Your task to perform on an android device: open a bookmark in the chrome app Image 0: 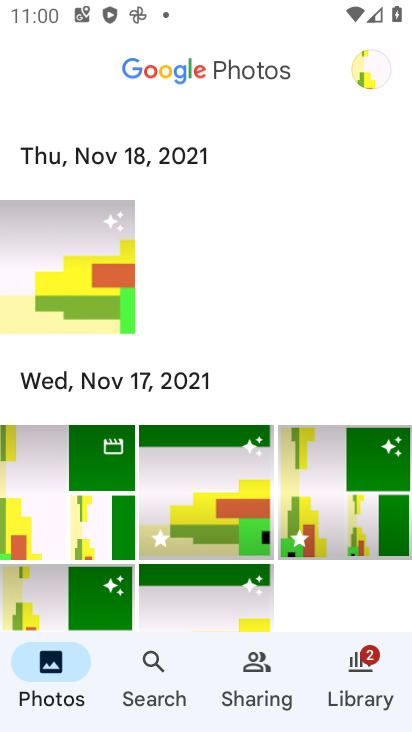
Step 0: press home button
Your task to perform on an android device: open a bookmark in the chrome app Image 1: 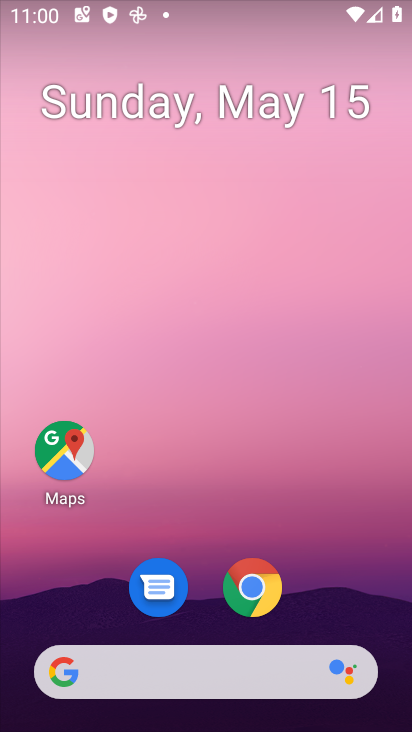
Step 1: drag from (388, 671) to (257, 74)
Your task to perform on an android device: open a bookmark in the chrome app Image 2: 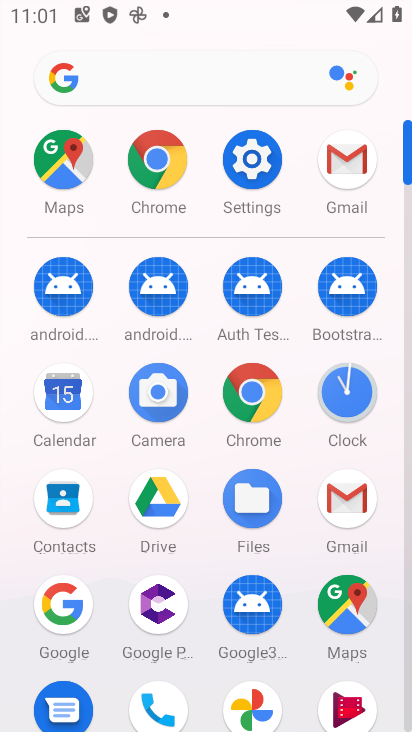
Step 2: click (148, 178)
Your task to perform on an android device: open a bookmark in the chrome app Image 3: 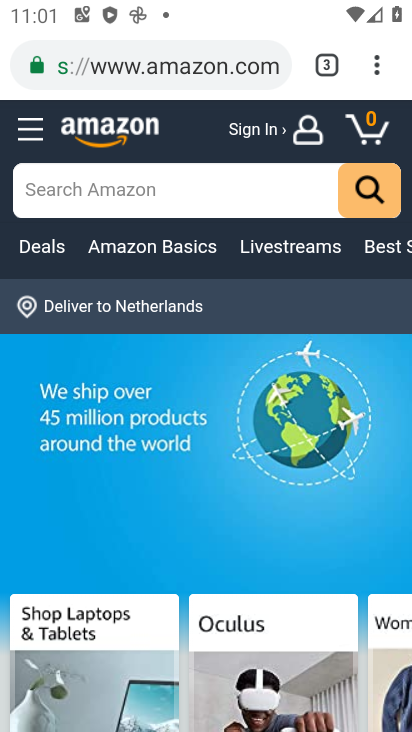
Step 3: press back button
Your task to perform on an android device: open a bookmark in the chrome app Image 4: 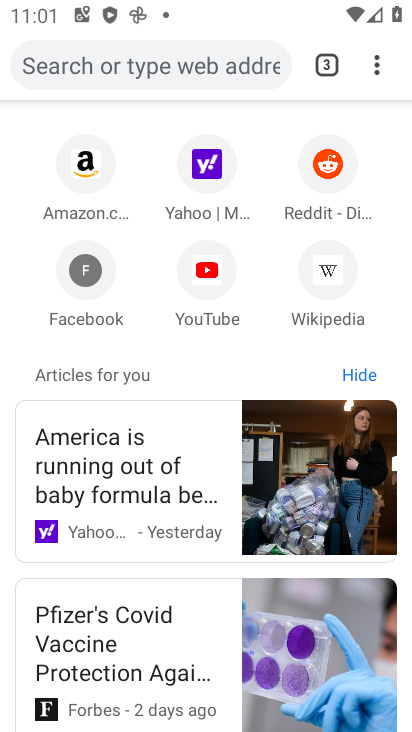
Step 4: click (373, 65)
Your task to perform on an android device: open a bookmark in the chrome app Image 5: 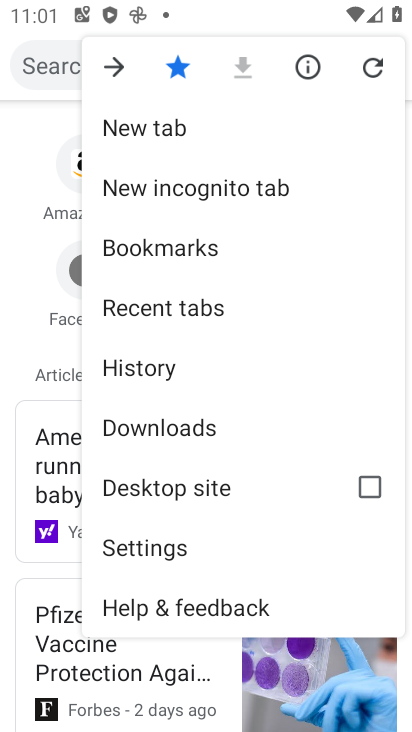
Step 5: click (210, 230)
Your task to perform on an android device: open a bookmark in the chrome app Image 6: 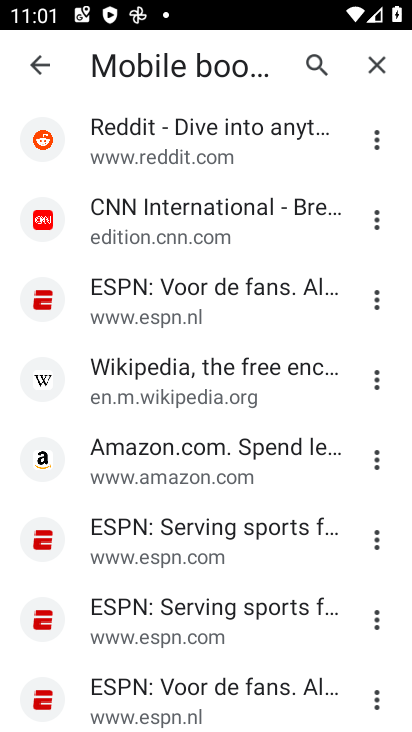
Step 6: task complete